Your task to perform on an android device: turn on notifications settings in the gmail app Image 0: 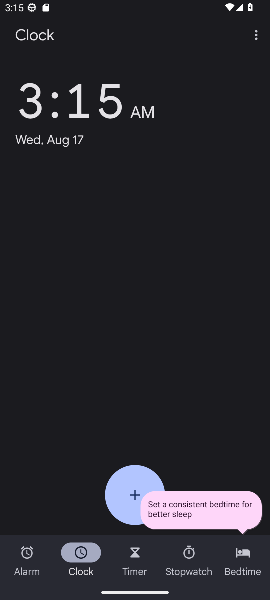
Step 0: press home button
Your task to perform on an android device: turn on notifications settings in the gmail app Image 1: 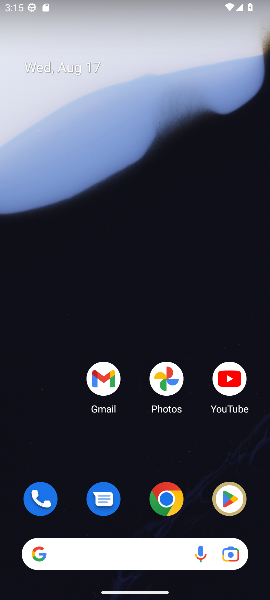
Step 1: drag from (145, 454) to (225, 2)
Your task to perform on an android device: turn on notifications settings in the gmail app Image 2: 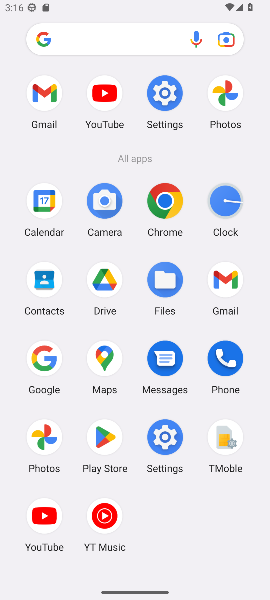
Step 2: press home button
Your task to perform on an android device: turn on notifications settings in the gmail app Image 3: 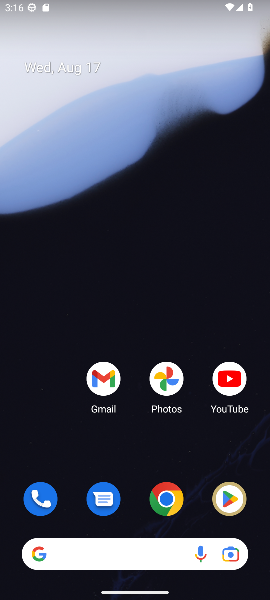
Step 3: drag from (201, 519) to (196, 14)
Your task to perform on an android device: turn on notifications settings in the gmail app Image 4: 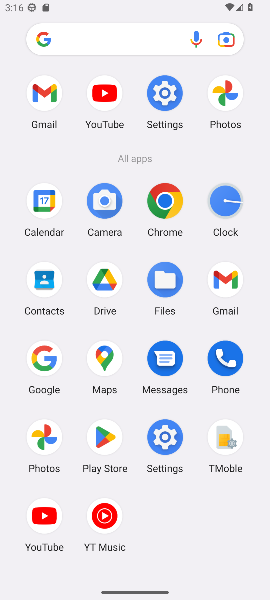
Step 4: click (161, 430)
Your task to perform on an android device: turn on notifications settings in the gmail app Image 5: 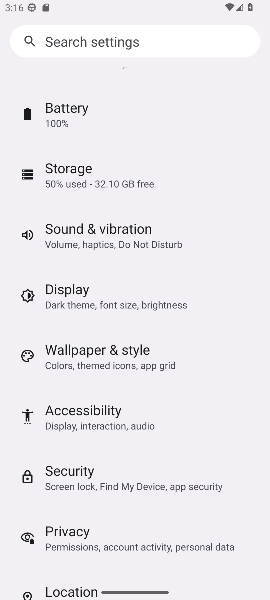
Step 5: press home button
Your task to perform on an android device: turn on notifications settings in the gmail app Image 6: 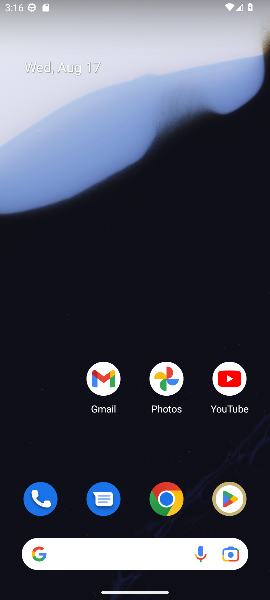
Step 6: drag from (160, 448) to (213, 70)
Your task to perform on an android device: turn on notifications settings in the gmail app Image 7: 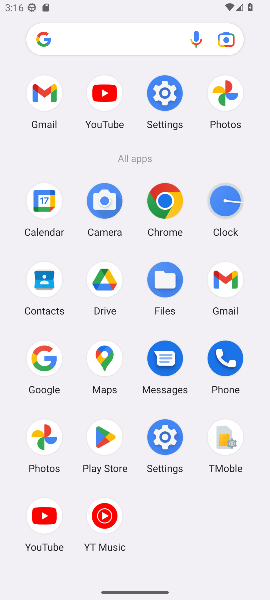
Step 7: click (228, 272)
Your task to perform on an android device: turn on notifications settings in the gmail app Image 8: 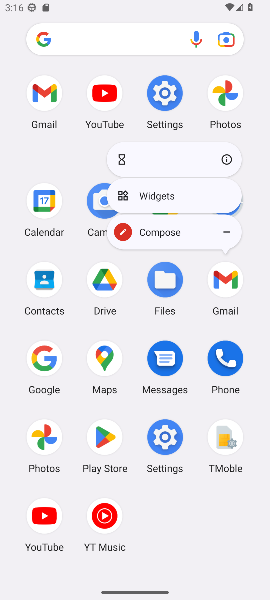
Step 8: click (229, 160)
Your task to perform on an android device: turn on notifications settings in the gmail app Image 9: 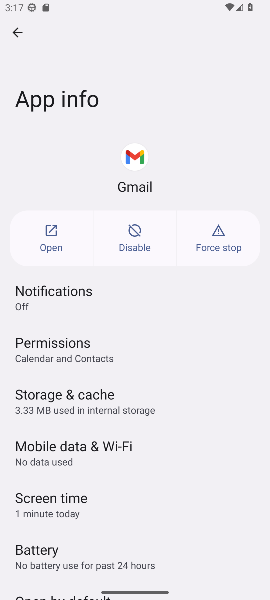
Step 9: click (50, 293)
Your task to perform on an android device: turn on notifications settings in the gmail app Image 10: 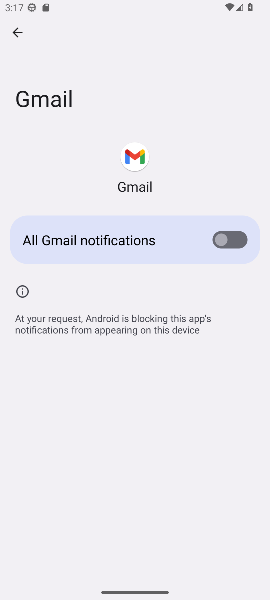
Step 10: click (237, 232)
Your task to perform on an android device: turn on notifications settings in the gmail app Image 11: 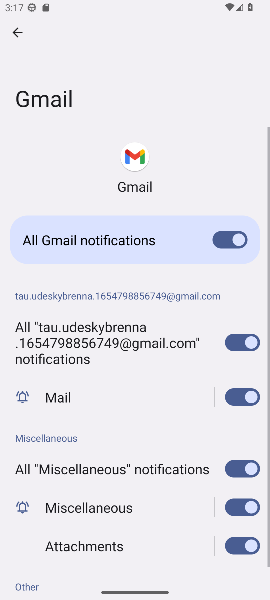
Step 11: task complete